Your task to perform on an android device: turn on bluetooth scan Image 0: 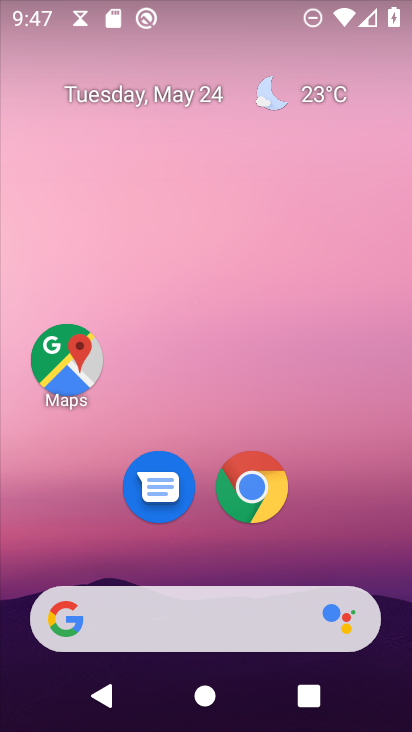
Step 0: drag from (52, 522) to (250, 196)
Your task to perform on an android device: turn on bluetooth scan Image 1: 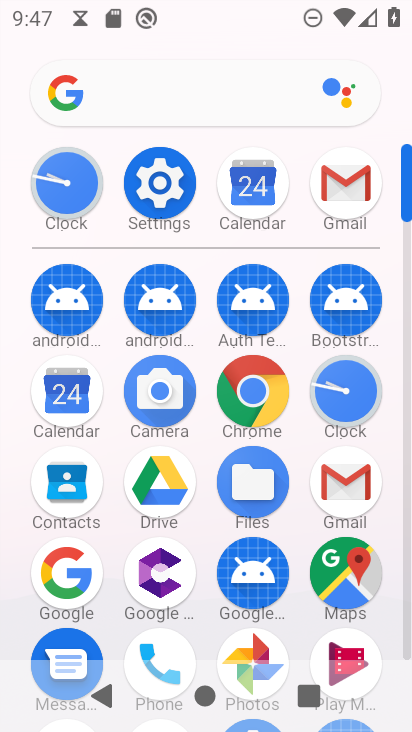
Step 1: click (146, 187)
Your task to perform on an android device: turn on bluetooth scan Image 2: 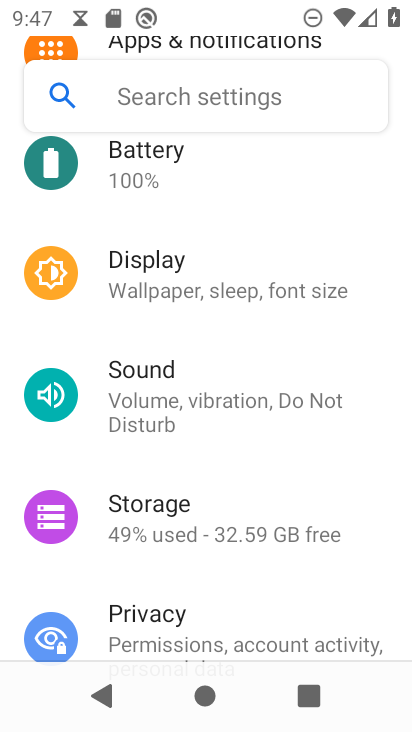
Step 2: drag from (1, 676) to (241, 101)
Your task to perform on an android device: turn on bluetooth scan Image 3: 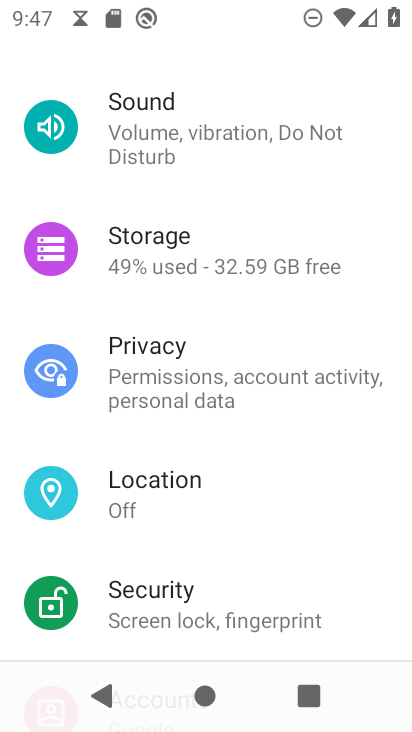
Step 3: click (206, 477)
Your task to perform on an android device: turn on bluetooth scan Image 4: 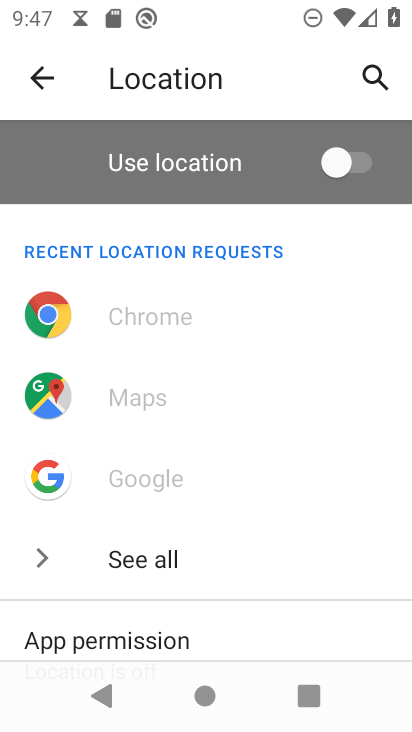
Step 4: drag from (59, 481) to (270, 245)
Your task to perform on an android device: turn on bluetooth scan Image 5: 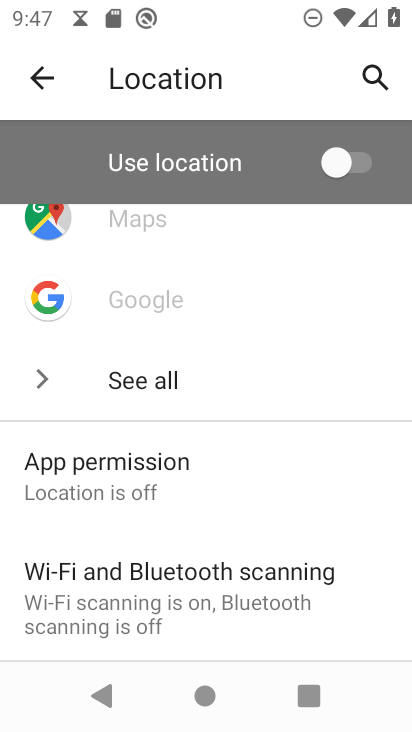
Step 5: click (158, 600)
Your task to perform on an android device: turn on bluetooth scan Image 6: 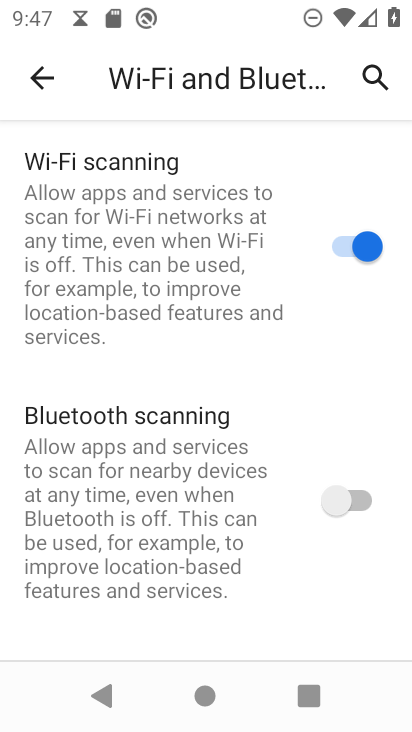
Step 6: click (350, 507)
Your task to perform on an android device: turn on bluetooth scan Image 7: 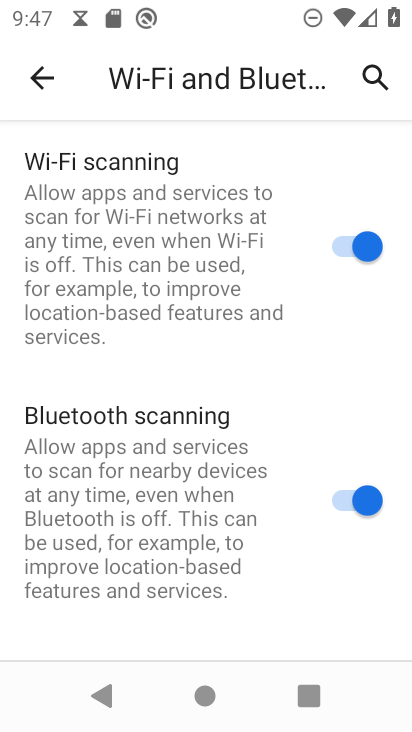
Step 7: task complete